Your task to perform on an android device: What's the weather today? Image 0: 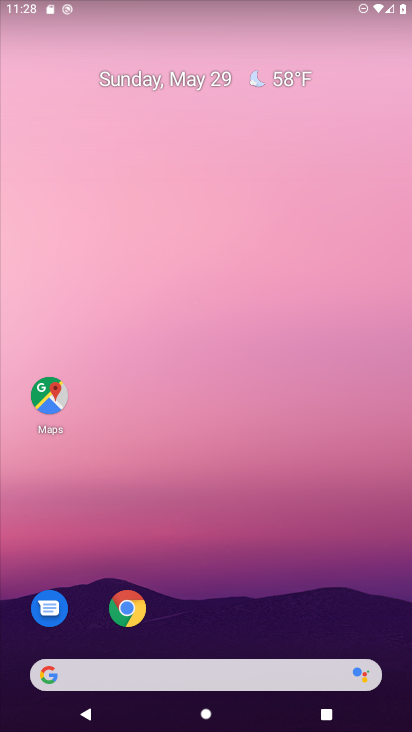
Step 0: drag from (246, 593) to (253, 129)
Your task to perform on an android device: What's the weather today? Image 1: 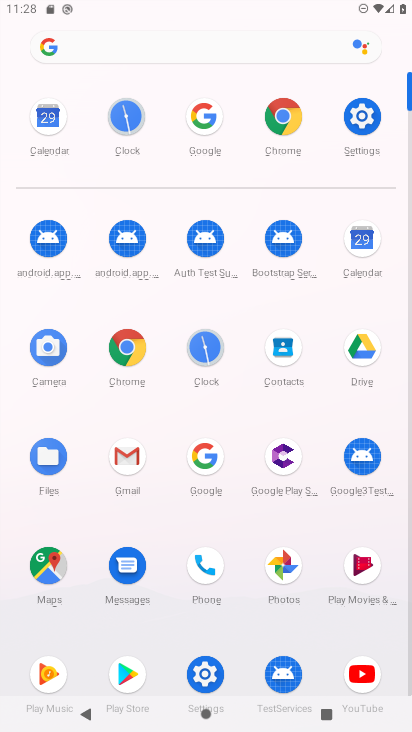
Step 1: click (190, 465)
Your task to perform on an android device: What's the weather today? Image 2: 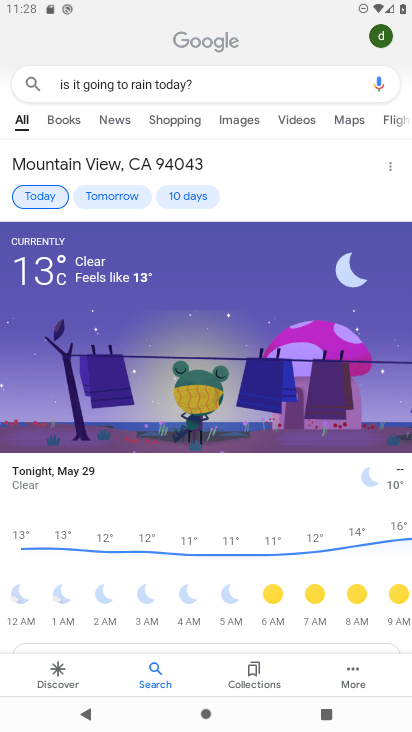
Step 2: drag from (183, 620) to (221, 225)
Your task to perform on an android device: What's the weather today? Image 3: 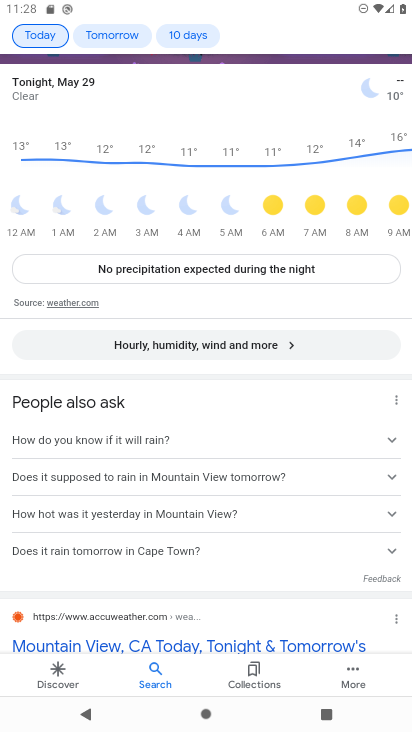
Step 3: drag from (227, 98) to (228, 607)
Your task to perform on an android device: What's the weather today? Image 4: 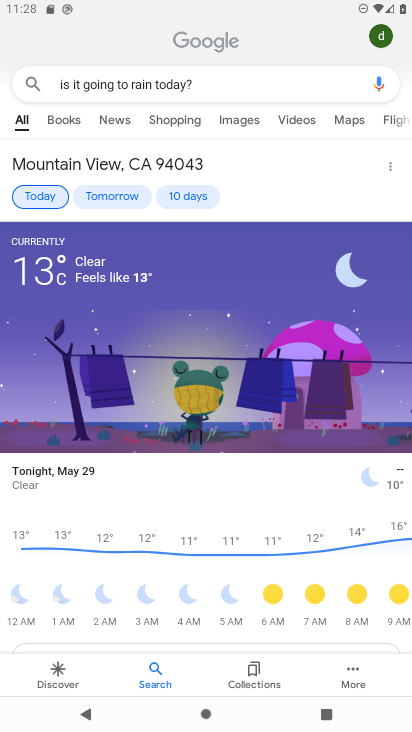
Step 4: click (203, 83)
Your task to perform on an android device: What's the weather today? Image 5: 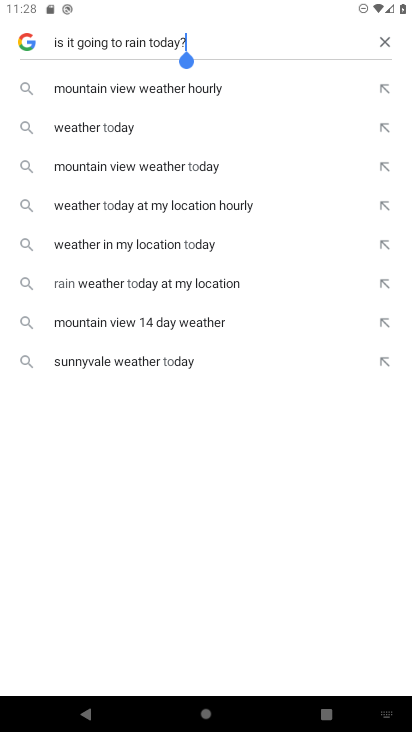
Step 5: click (384, 42)
Your task to perform on an android device: What's the weather today? Image 6: 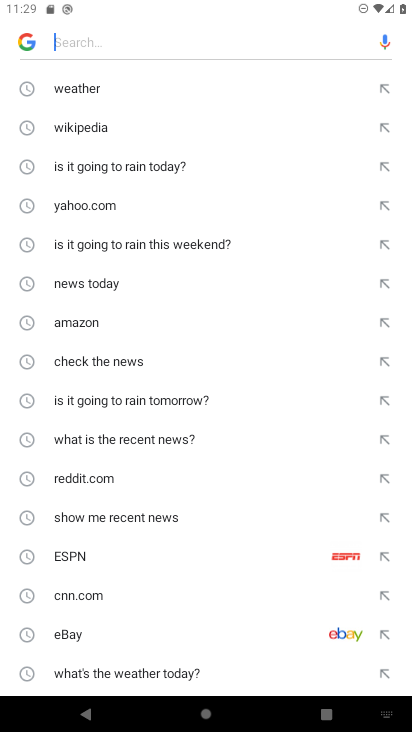
Step 6: click (69, 87)
Your task to perform on an android device: What's the weather today? Image 7: 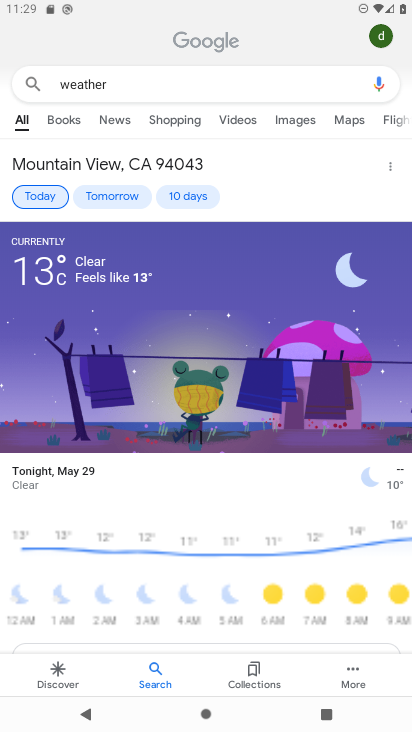
Step 7: task complete